Your task to perform on an android device: Is it going to rain today? Image 0: 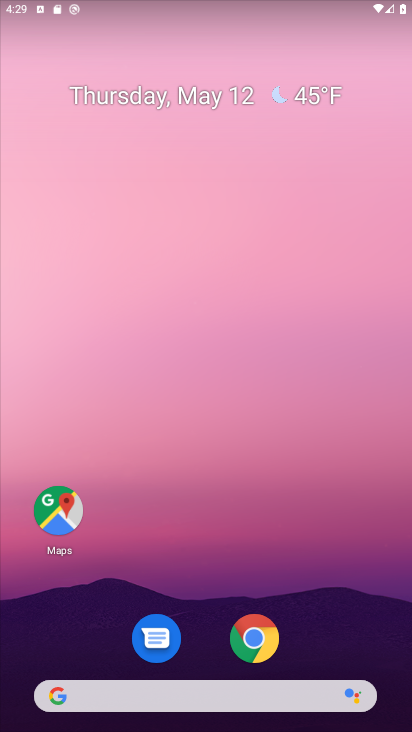
Step 0: click (304, 92)
Your task to perform on an android device: Is it going to rain today? Image 1: 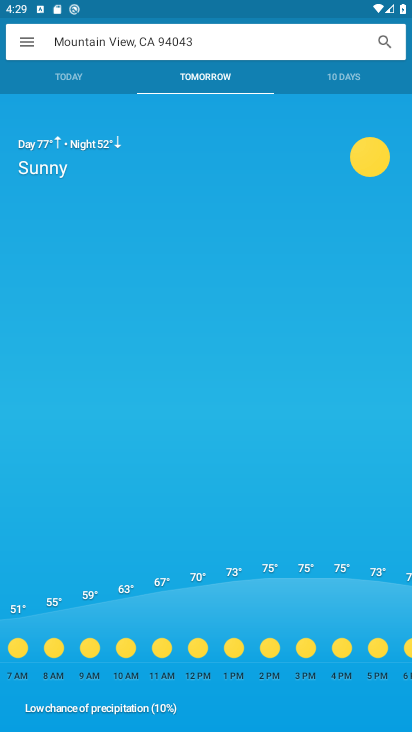
Step 1: click (62, 72)
Your task to perform on an android device: Is it going to rain today? Image 2: 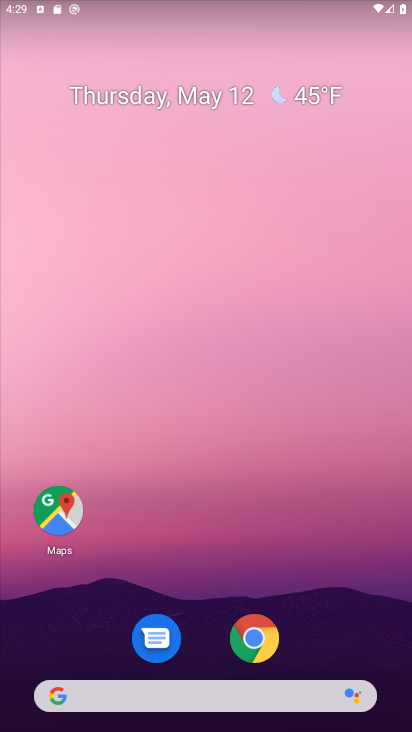
Step 2: task complete